Your task to perform on an android device: Open Chrome and go to settings Image 0: 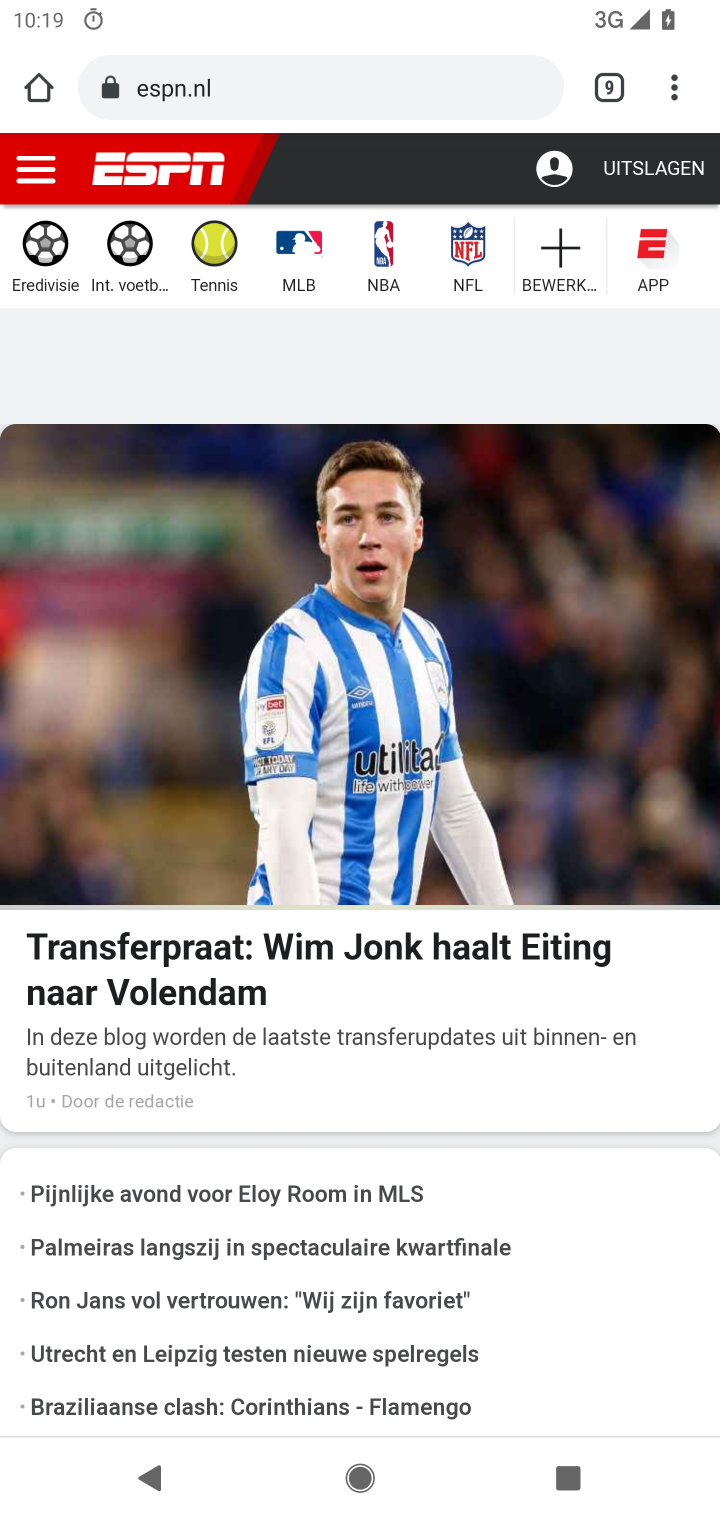
Step 0: click (674, 96)
Your task to perform on an android device: Open Chrome and go to settings Image 1: 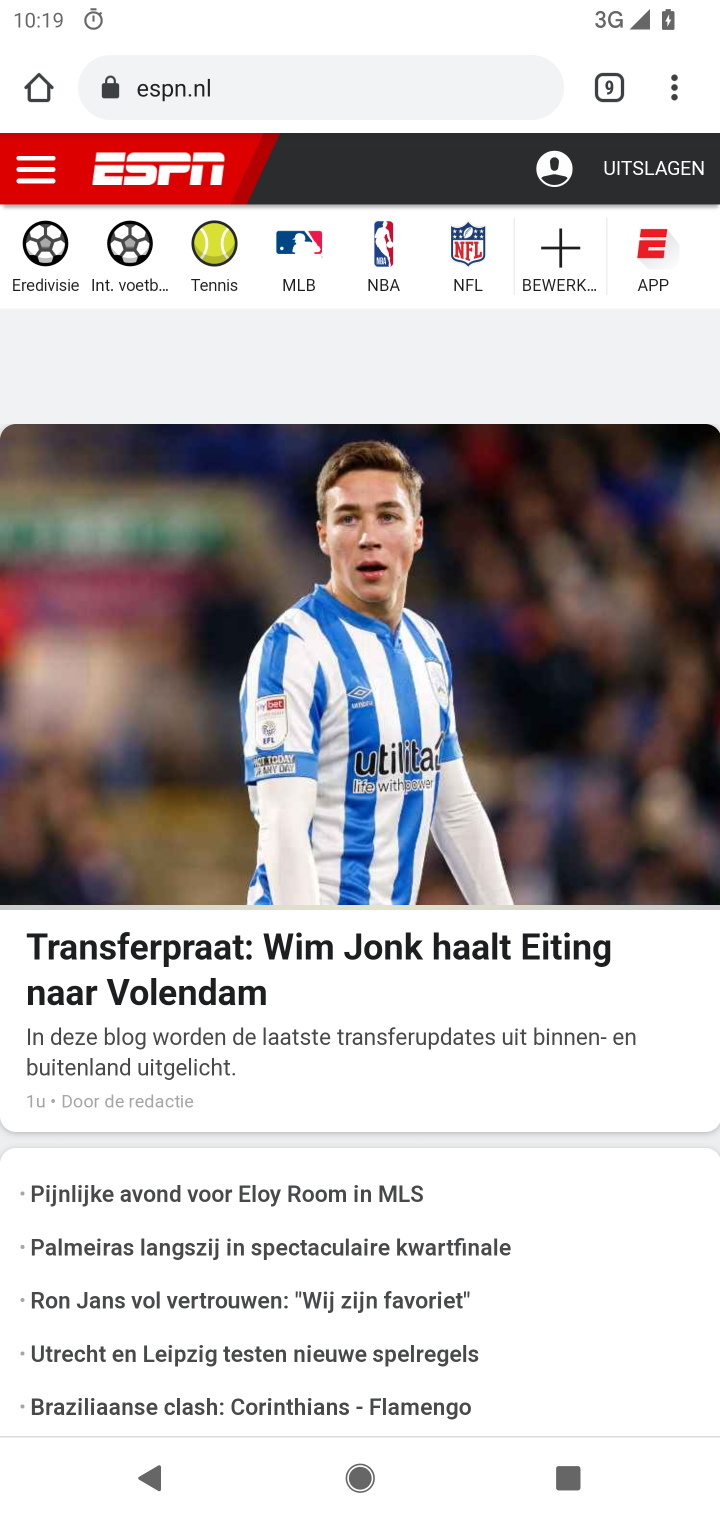
Step 1: task complete